Your task to perform on an android device: find snoozed emails in the gmail app Image 0: 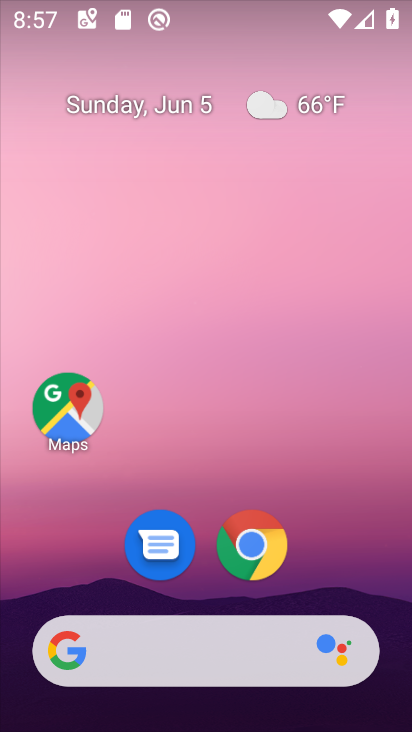
Step 0: drag from (381, 590) to (385, 172)
Your task to perform on an android device: find snoozed emails in the gmail app Image 1: 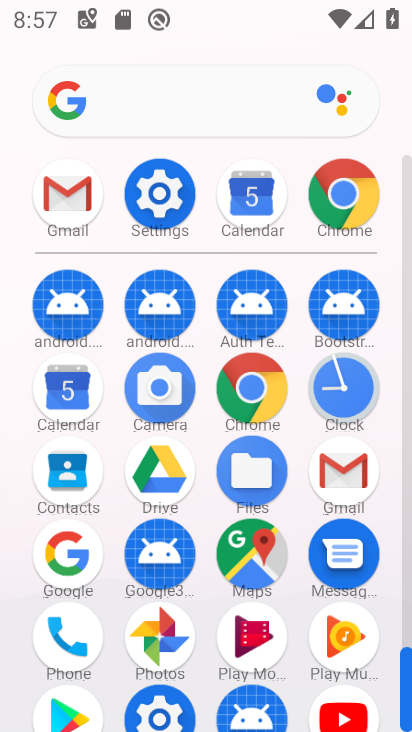
Step 1: click (345, 465)
Your task to perform on an android device: find snoozed emails in the gmail app Image 2: 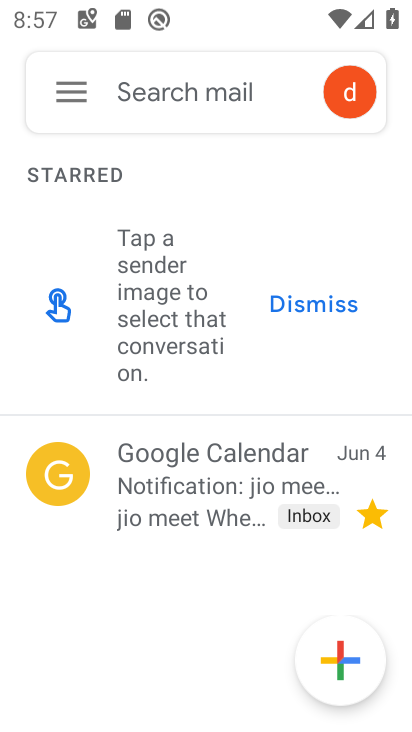
Step 2: click (79, 88)
Your task to perform on an android device: find snoozed emails in the gmail app Image 3: 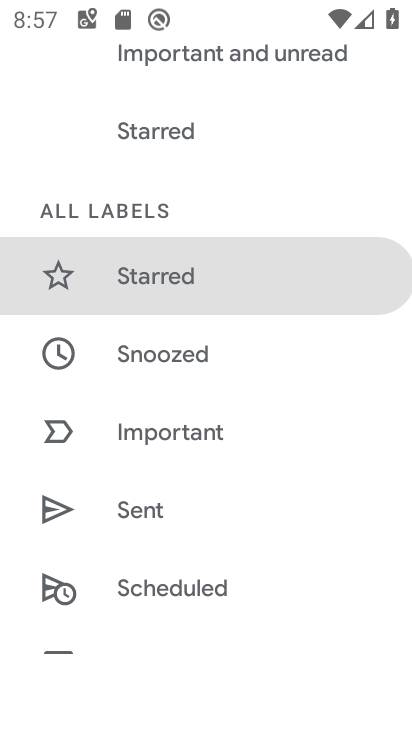
Step 3: drag from (356, 451) to (352, 322)
Your task to perform on an android device: find snoozed emails in the gmail app Image 4: 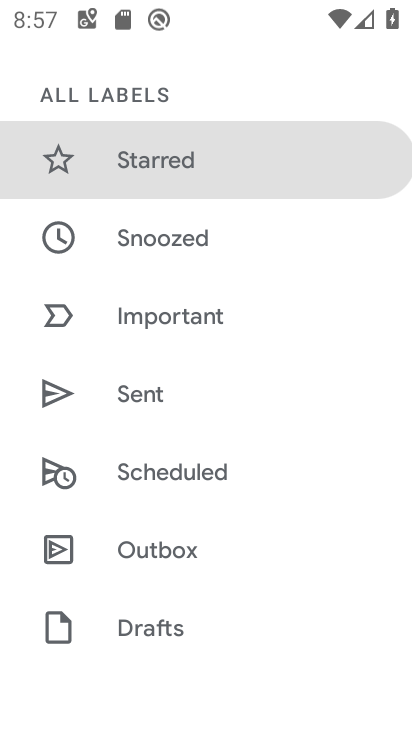
Step 4: drag from (353, 490) to (350, 368)
Your task to perform on an android device: find snoozed emails in the gmail app Image 5: 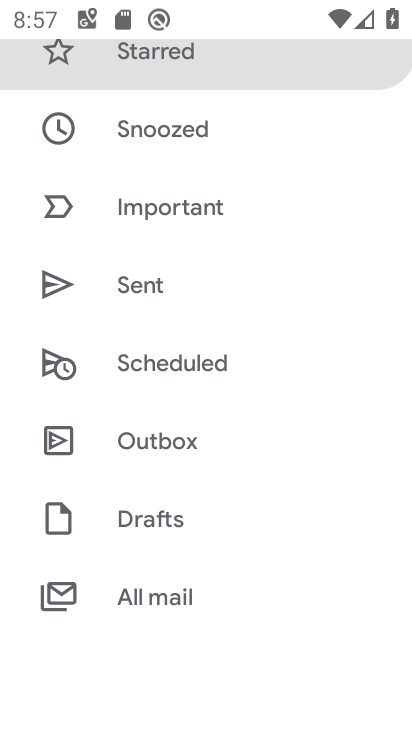
Step 5: drag from (353, 542) to (336, 326)
Your task to perform on an android device: find snoozed emails in the gmail app Image 6: 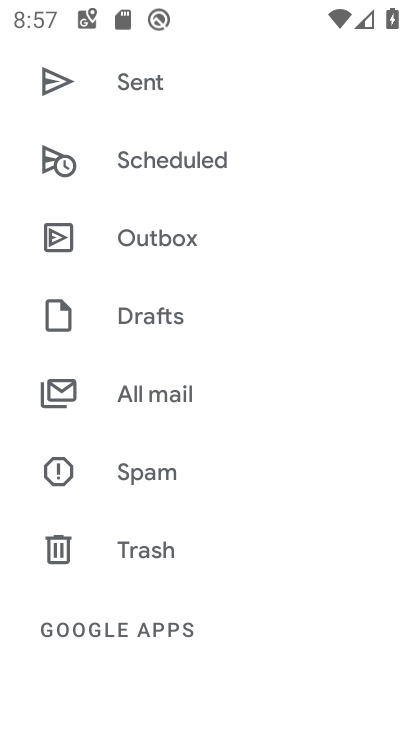
Step 6: drag from (322, 543) to (332, 343)
Your task to perform on an android device: find snoozed emails in the gmail app Image 7: 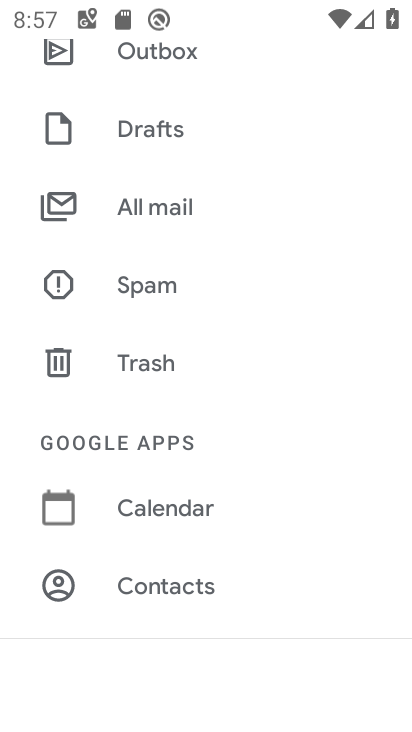
Step 7: drag from (319, 502) to (327, 252)
Your task to perform on an android device: find snoozed emails in the gmail app Image 8: 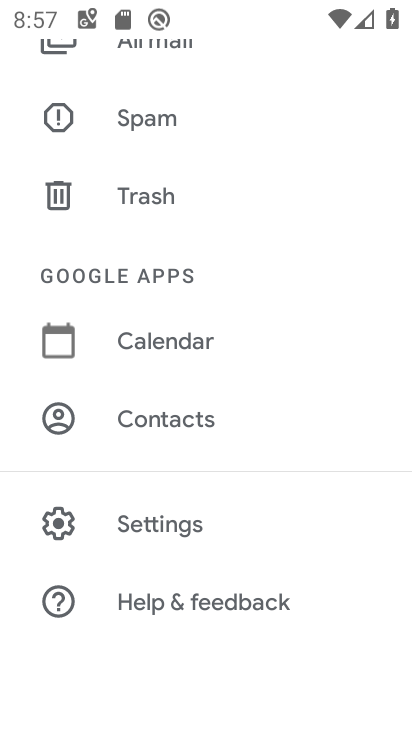
Step 8: drag from (335, 202) to (337, 383)
Your task to perform on an android device: find snoozed emails in the gmail app Image 9: 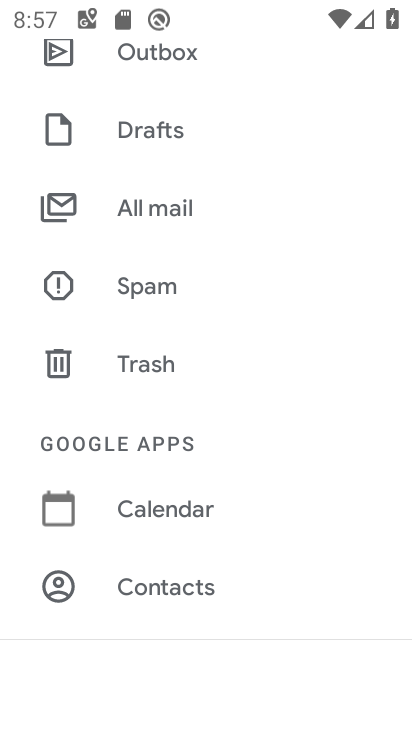
Step 9: drag from (333, 200) to (322, 352)
Your task to perform on an android device: find snoozed emails in the gmail app Image 10: 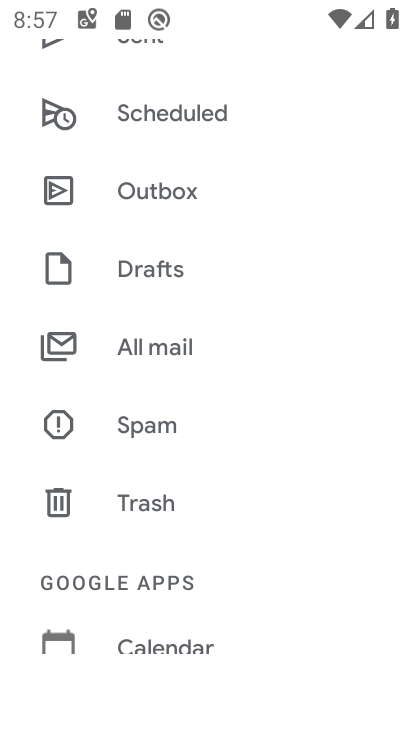
Step 10: drag from (325, 162) to (329, 301)
Your task to perform on an android device: find snoozed emails in the gmail app Image 11: 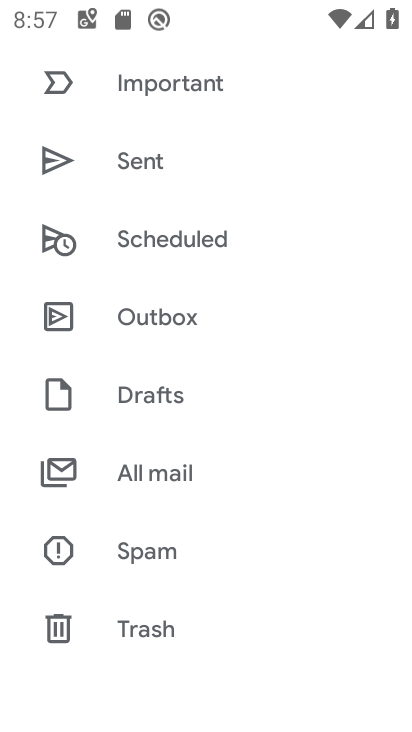
Step 11: drag from (332, 124) to (333, 325)
Your task to perform on an android device: find snoozed emails in the gmail app Image 12: 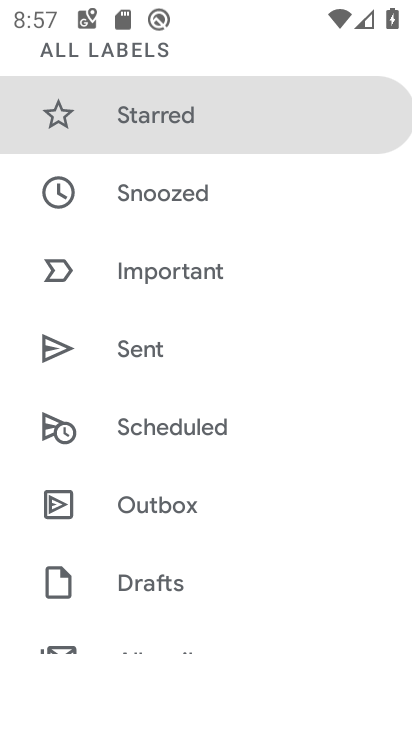
Step 12: click (219, 191)
Your task to perform on an android device: find snoozed emails in the gmail app Image 13: 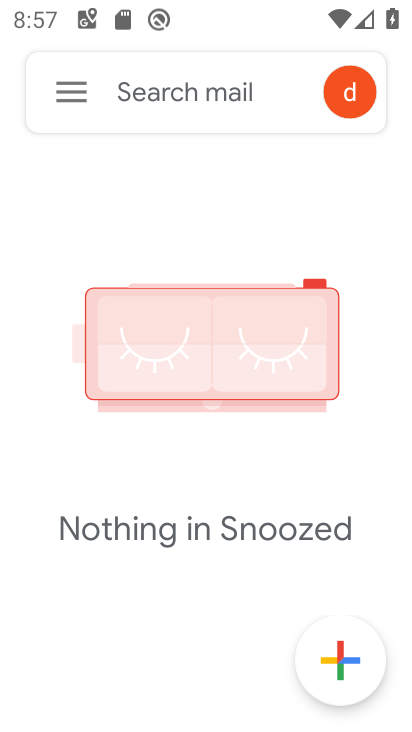
Step 13: task complete